Your task to perform on an android device: Open Maps and search for coffee Image 0: 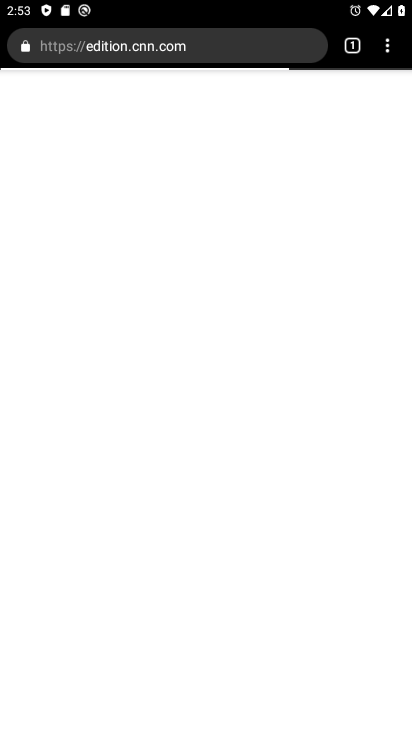
Step 0: press home button
Your task to perform on an android device: Open Maps and search for coffee Image 1: 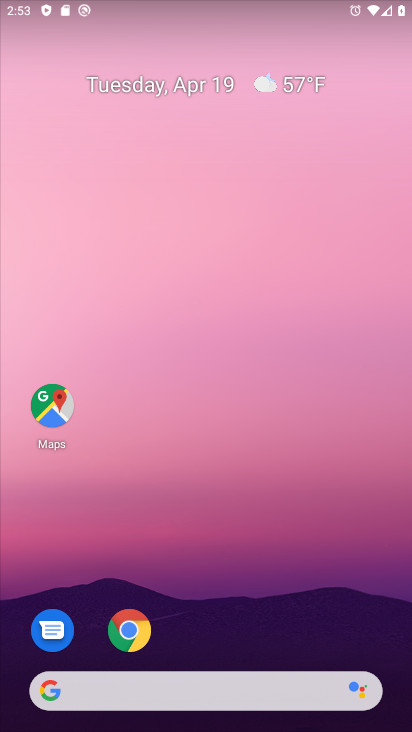
Step 1: click (47, 414)
Your task to perform on an android device: Open Maps and search for coffee Image 2: 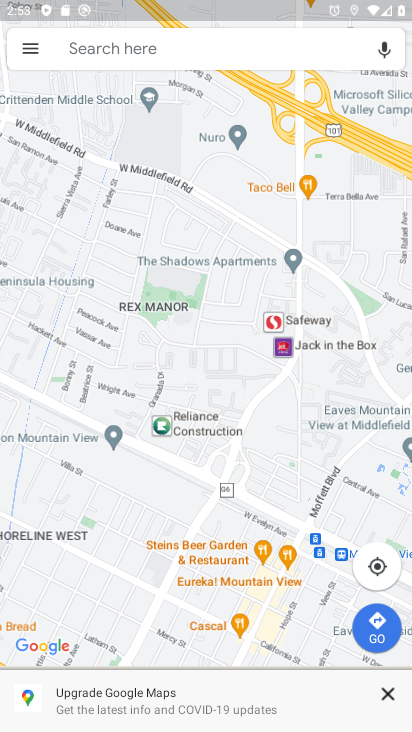
Step 2: click (141, 44)
Your task to perform on an android device: Open Maps and search for coffee Image 3: 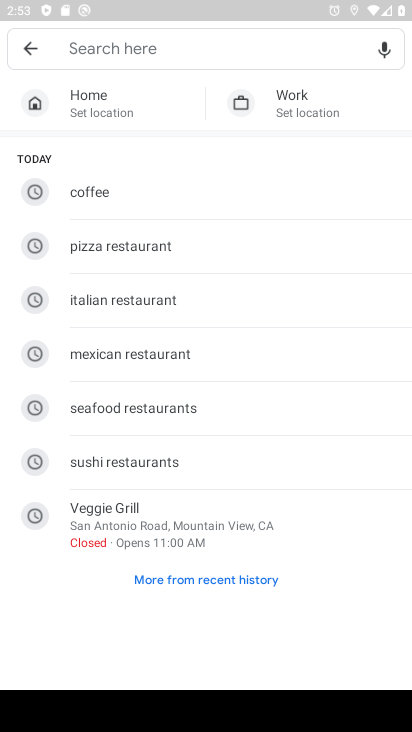
Step 3: click (101, 188)
Your task to perform on an android device: Open Maps and search for coffee Image 4: 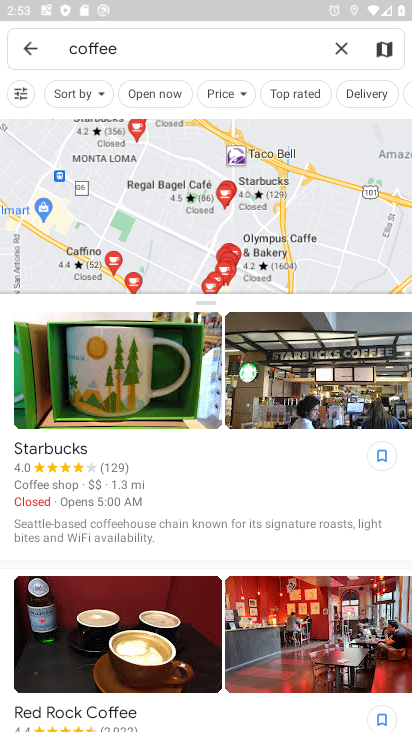
Step 4: task complete